Your task to perform on an android device: uninstall "Yahoo Mail" Image 0: 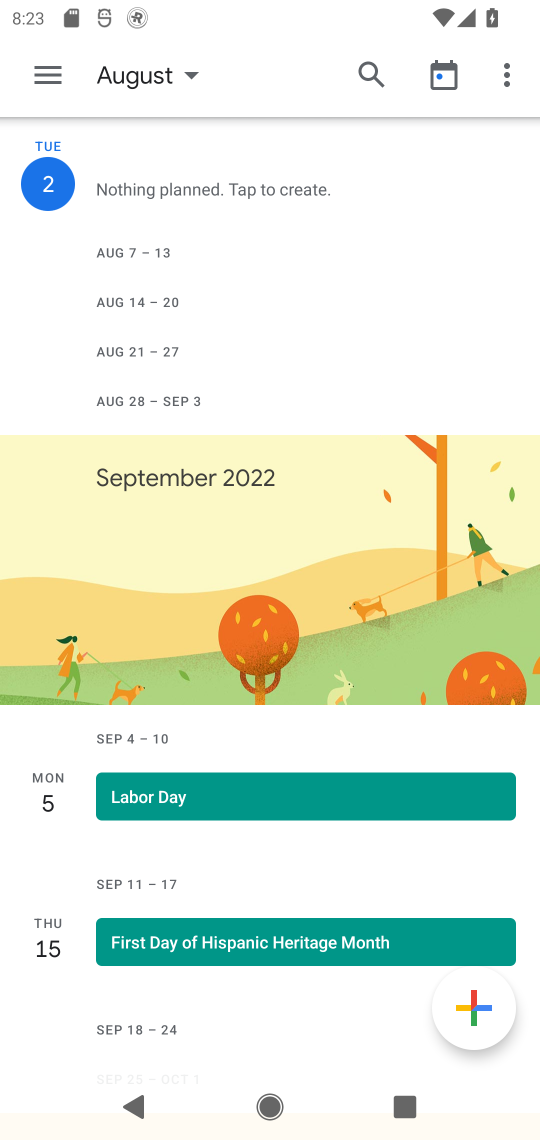
Step 0: press home button
Your task to perform on an android device: uninstall "Yahoo Mail" Image 1: 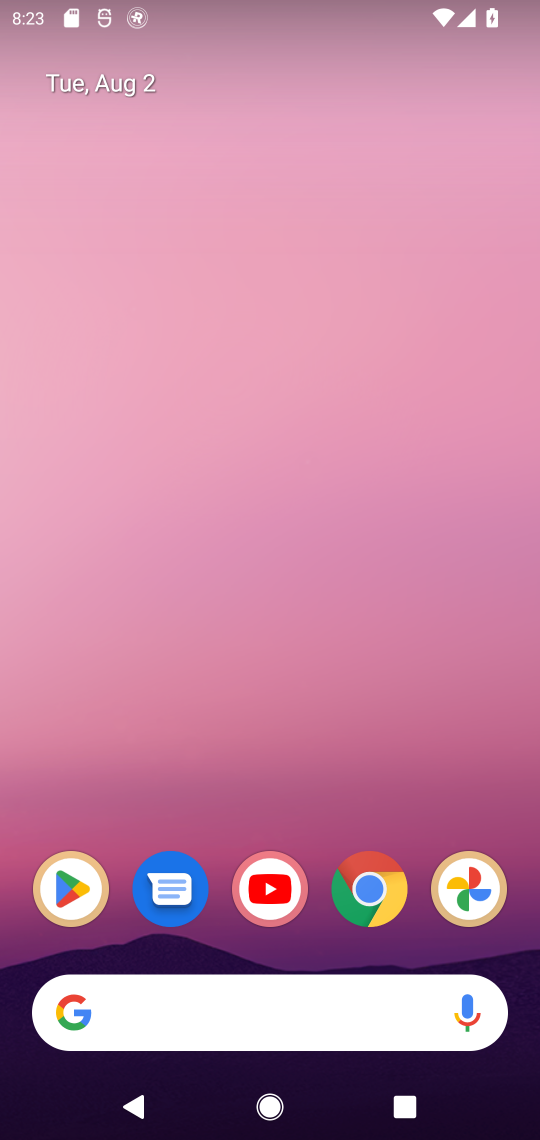
Step 1: click (78, 884)
Your task to perform on an android device: uninstall "Yahoo Mail" Image 2: 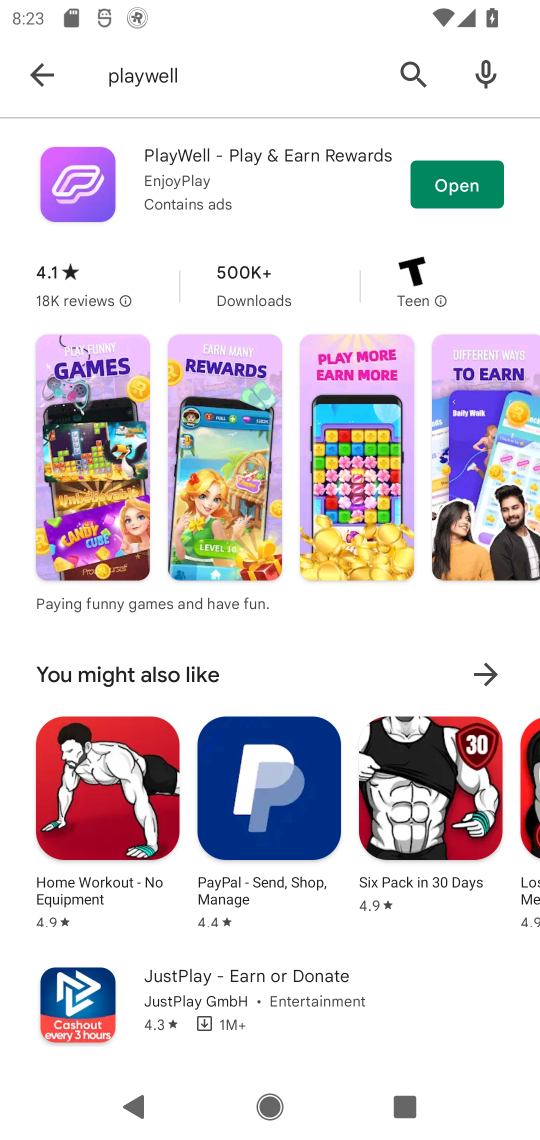
Step 2: click (405, 69)
Your task to perform on an android device: uninstall "Yahoo Mail" Image 3: 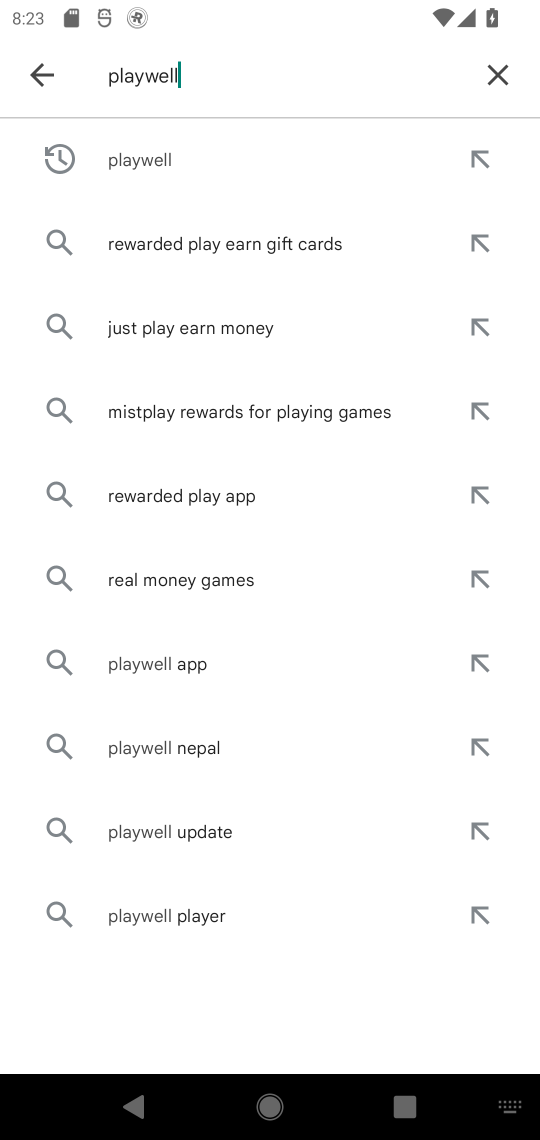
Step 3: click (502, 72)
Your task to perform on an android device: uninstall "Yahoo Mail" Image 4: 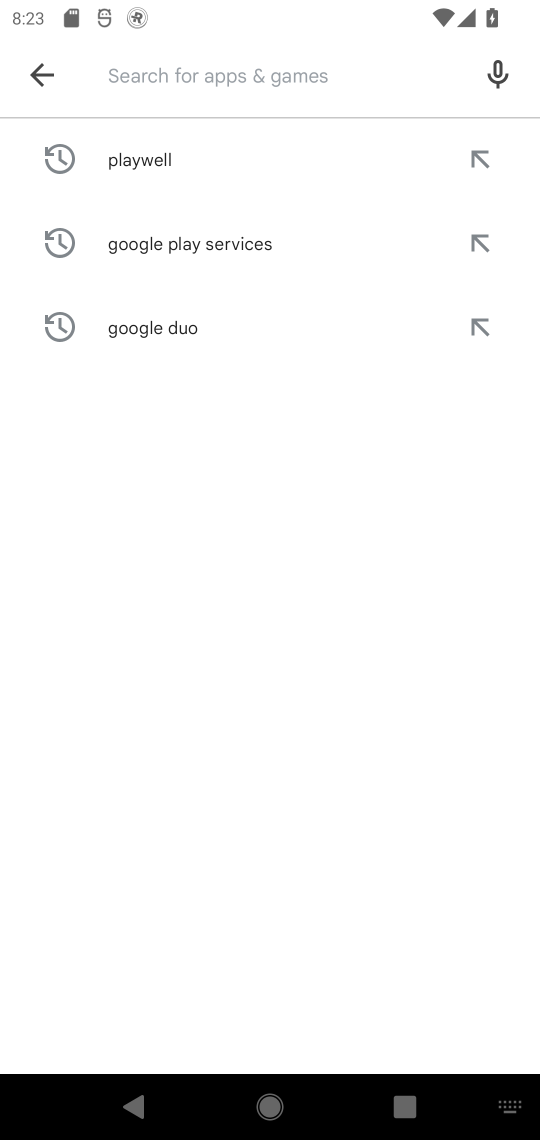
Step 4: type "Yahoo Mail"
Your task to perform on an android device: uninstall "Yahoo Mail" Image 5: 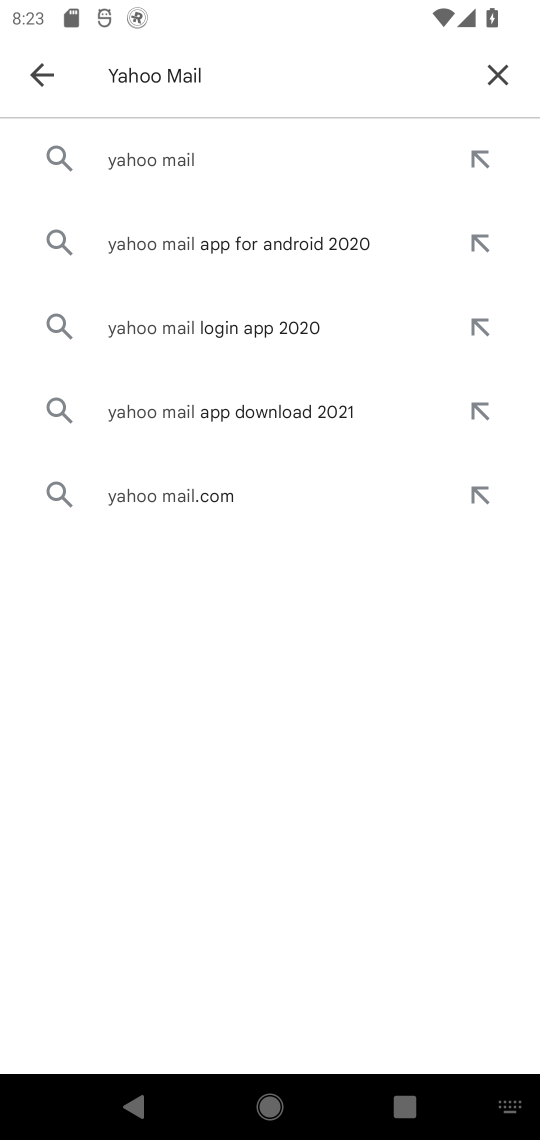
Step 5: click (200, 150)
Your task to perform on an android device: uninstall "Yahoo Mail" Image 6: 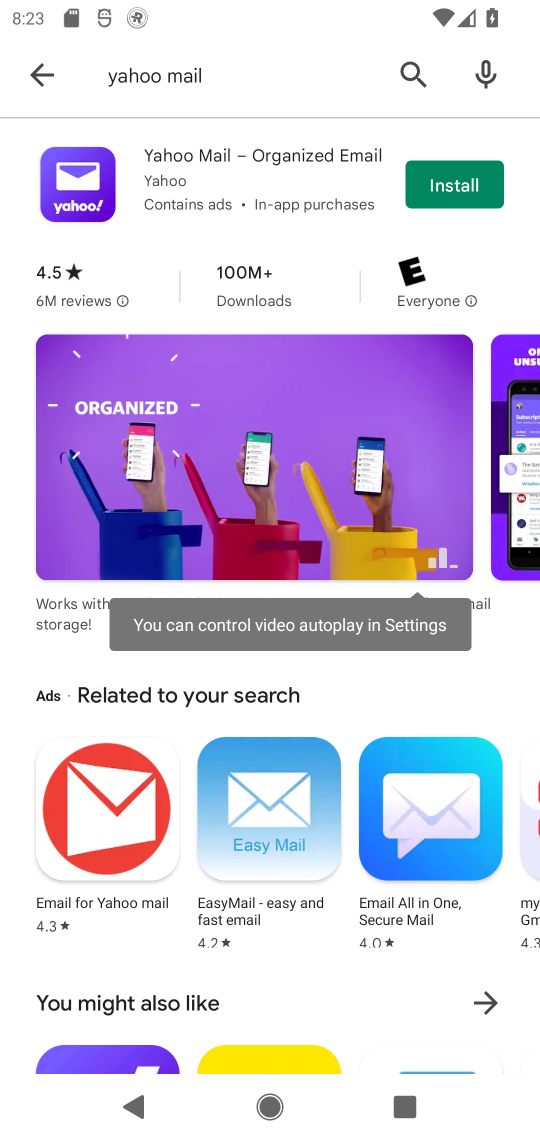
Step 6: task complete